Your task to perform on an android device: What is the capital of Italy? Image 0: 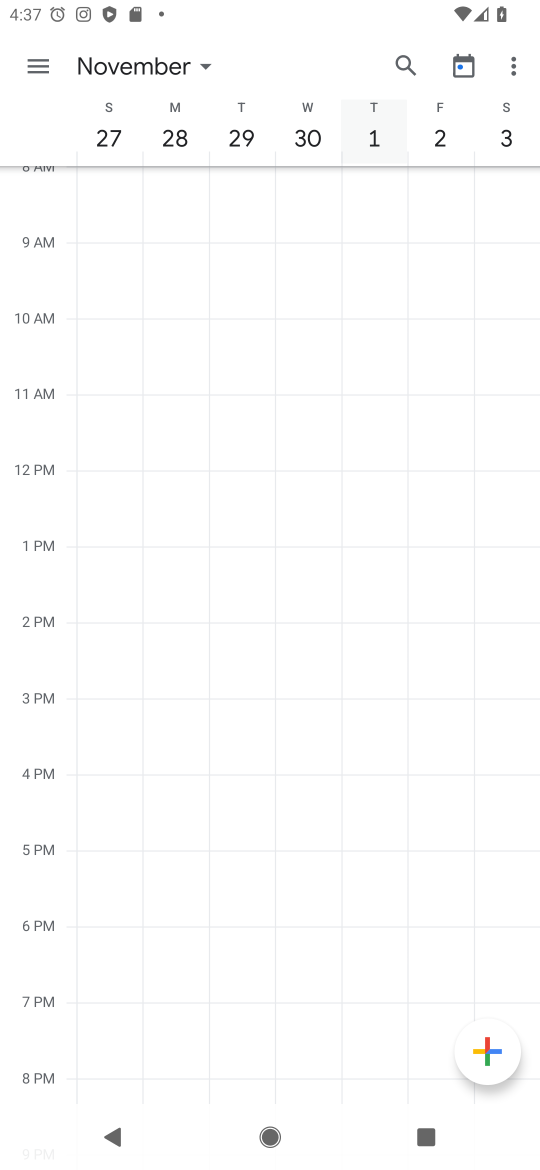
Step 0: press home button
Your task to perform on an android device: What is the capital of Italy? Image 1: 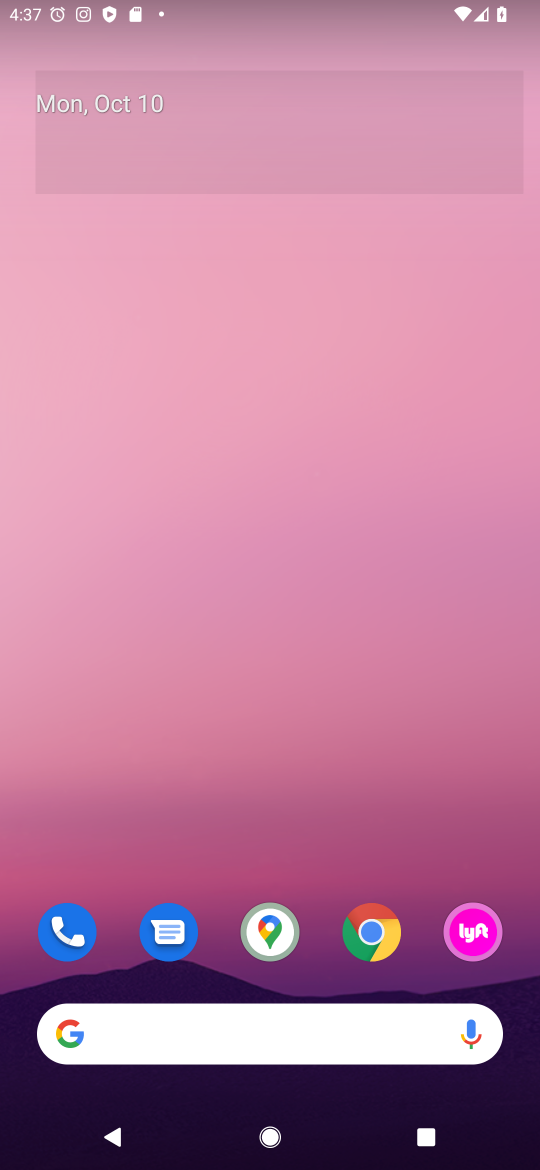
Step 1: click (374, 1038)
Your task to perform on an android device: What is the capital of Italy? Image 2: 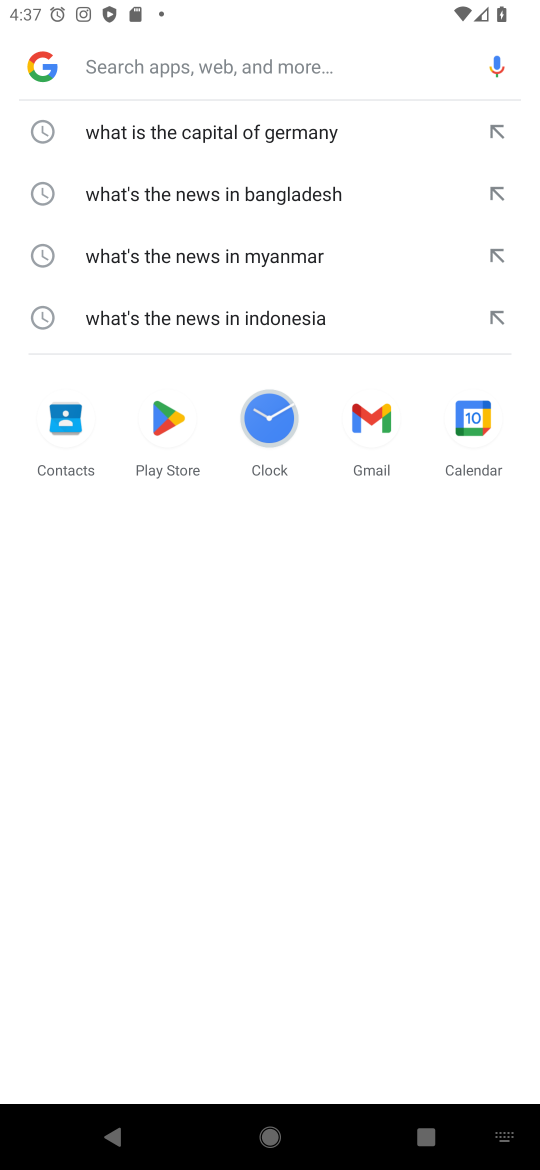
Step 2: press enter
Your task to perform on an android device: What is the capital of Italy? Image 3: 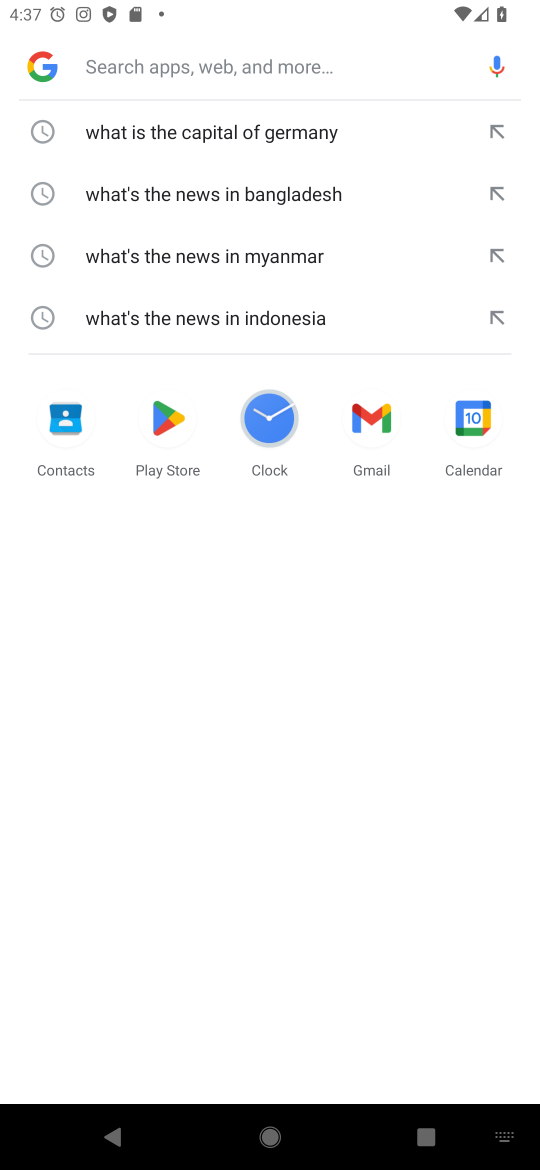
Step 3: type "What is the capital of Italy"
Your task to perform on an android device: What is the capital of Italy? Image 4: 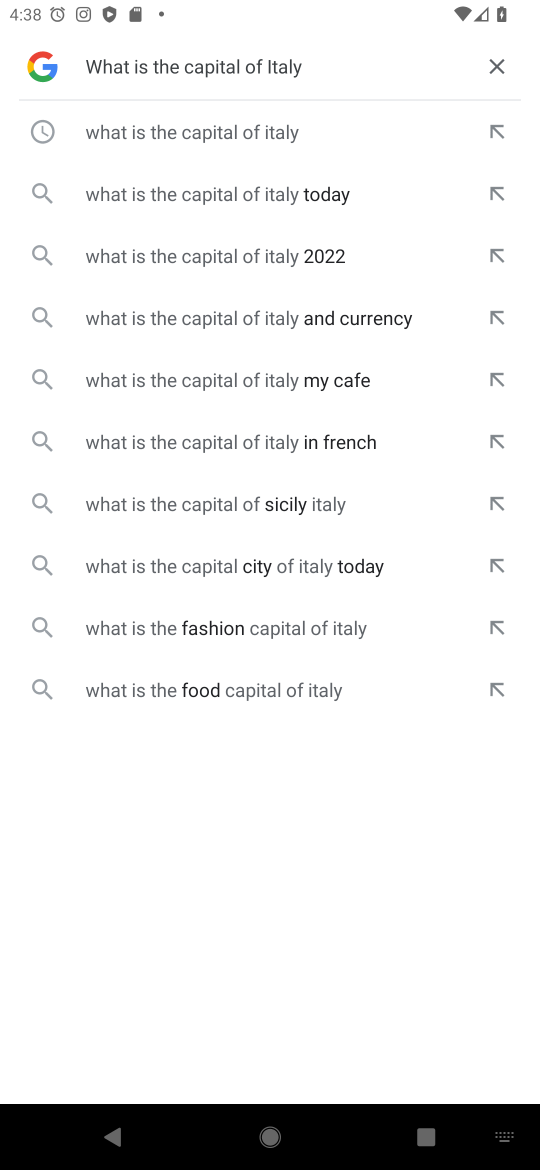
Step 4: press enter
Your task to perform on an android device: What is the capital of Italy? Image 5: 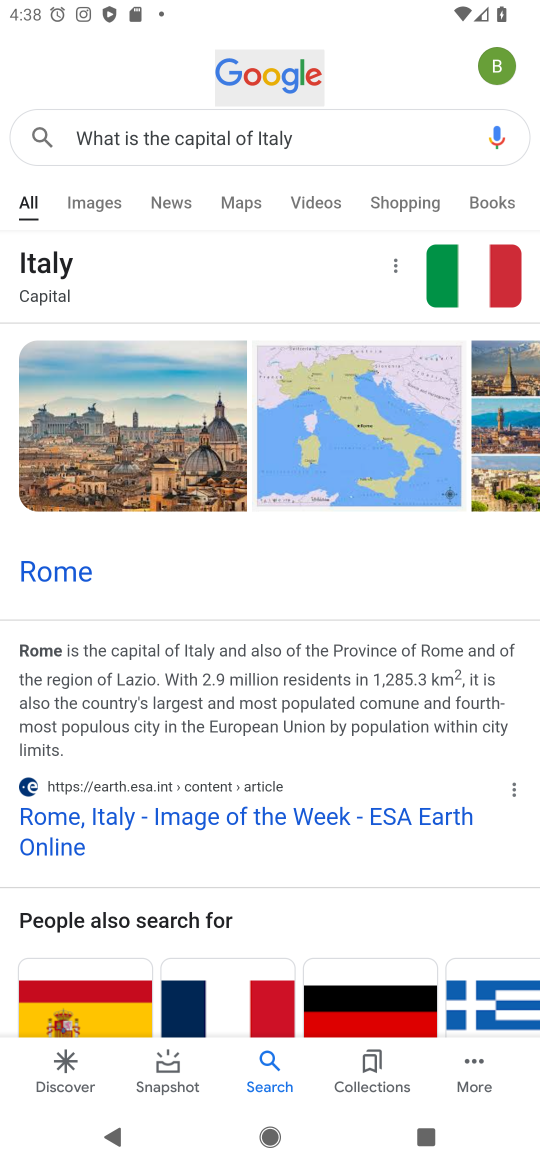
Step 5: task complete